Your task to perform on an android device: Open the stopwatch Image 0: 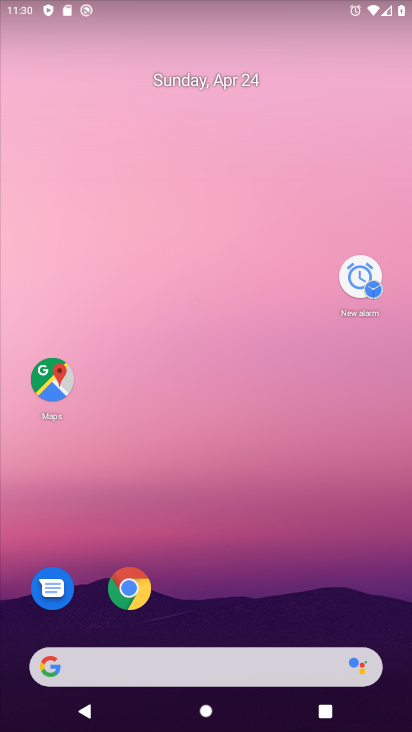
Step 0: drag from (201, 646) to (321, 0)
Your task to perform on an android device: Open the stopwatch Image 1: 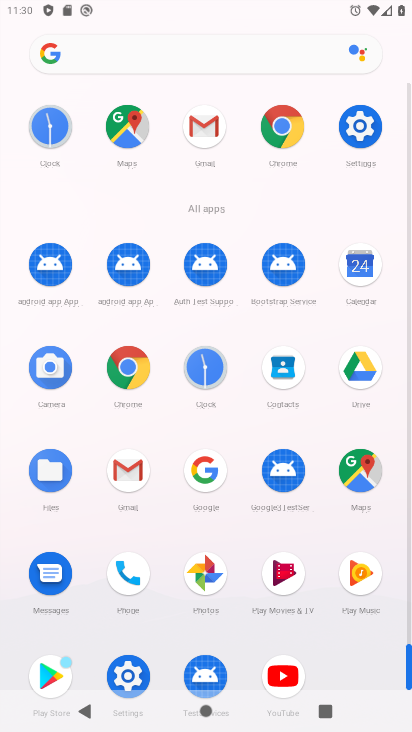
Step 1: click (206, 366)
Your task to perform on an android device: Open the stopwatch Image 2: 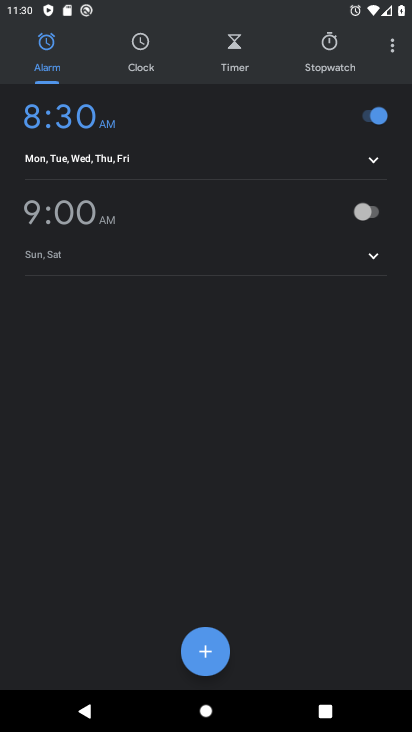
Step 2: click (353, 47)
Your task to perform on an android device: Open the stopwatch Image 3: 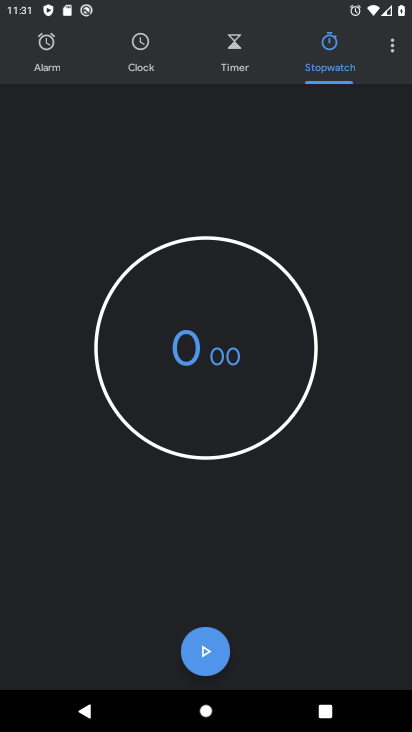
Step 3: task complete